Your task to perform on an android device: Open wifi settings Image 0: 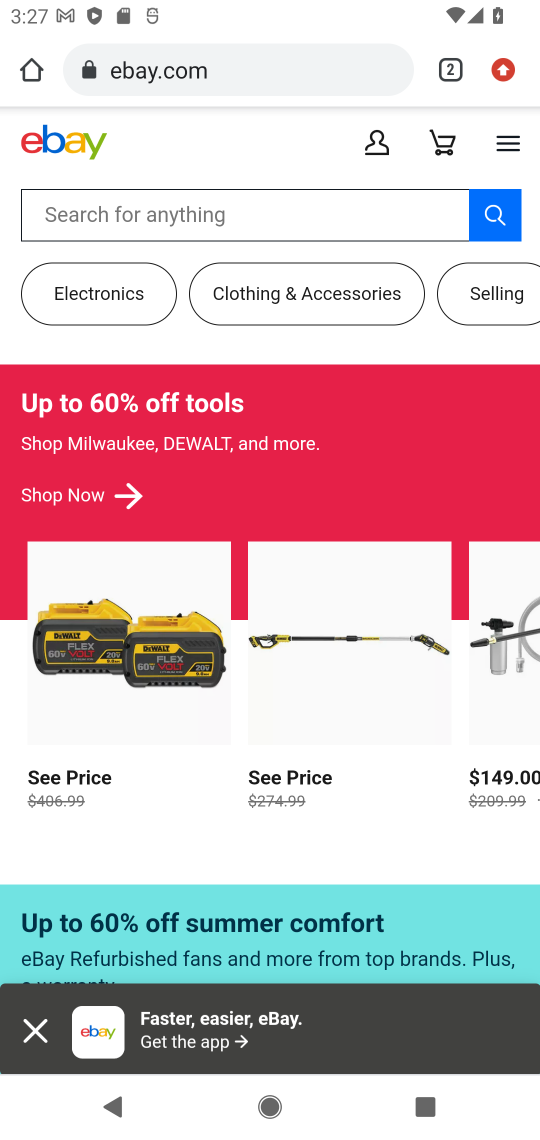
Step 0: press home button
Your task to perform on an android device: Open wifi settings Image 1: 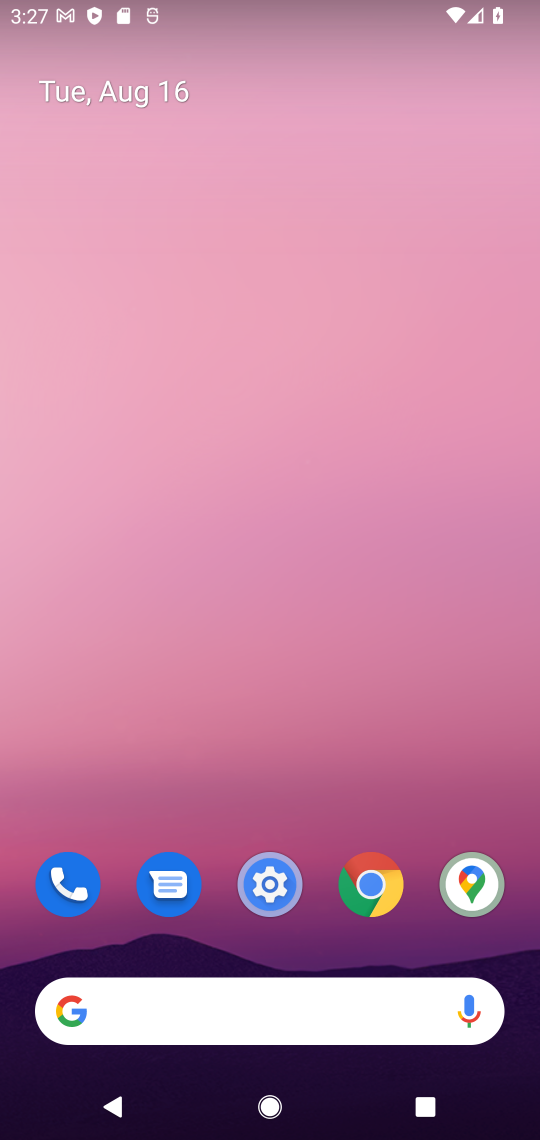
Step 1: click (285, 887)
Your task to perform on an android device: Open wifi settings Image 2: 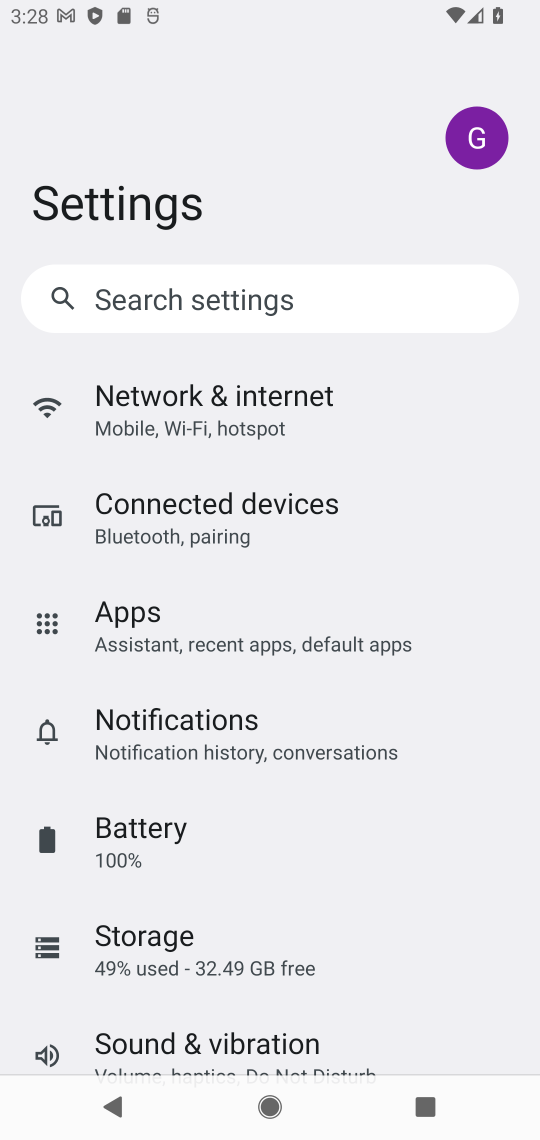
Step 2: click (286, 411)
Your task to perform on an android device: Open wifi settings Image 3: 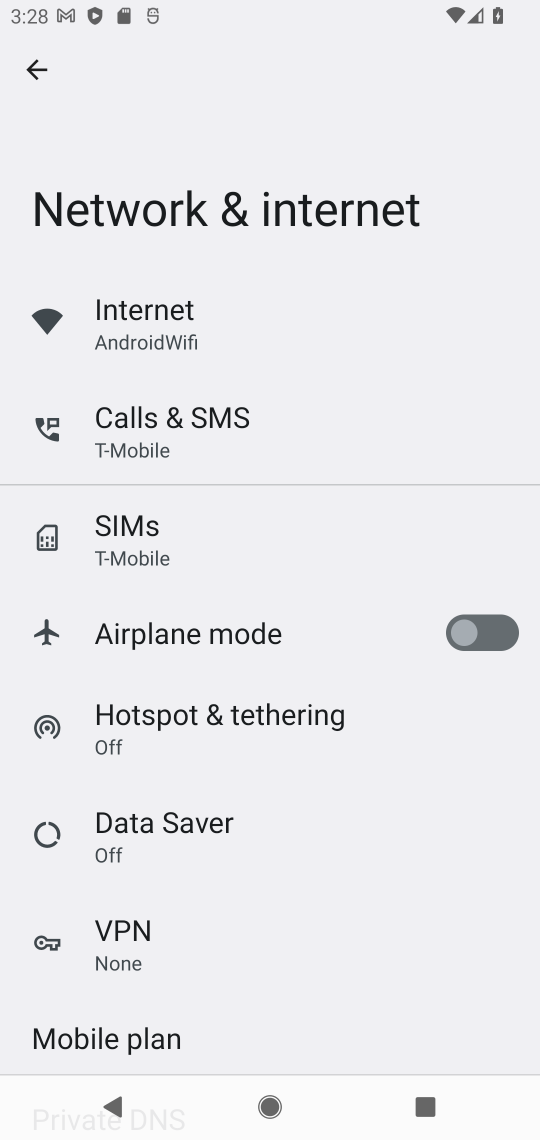
Step 3: click (179, 338)
Your task to perform on an android device: Open wifi settings Image 4: 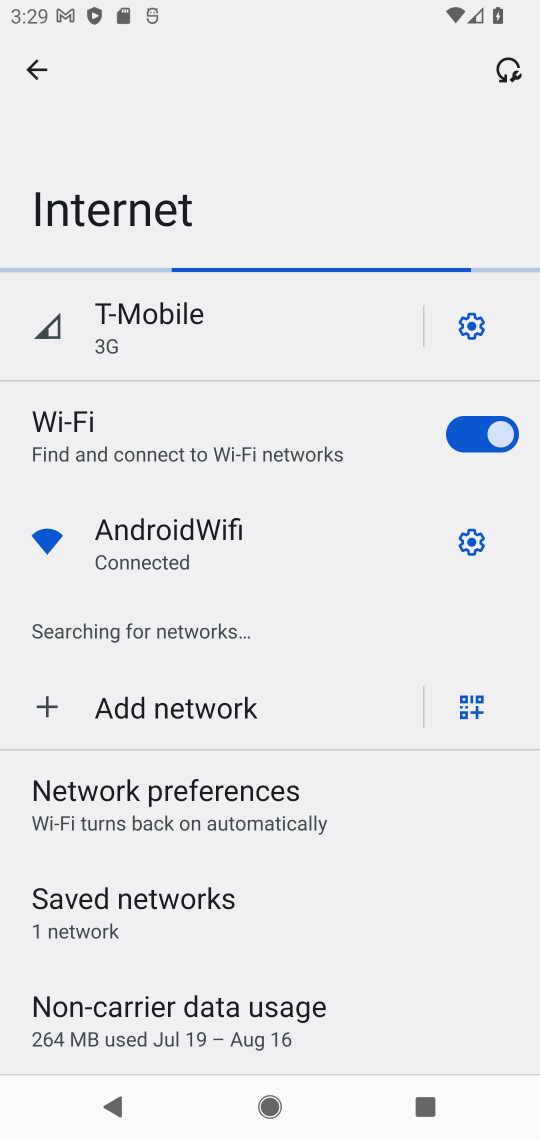
Step 4: task complete